Your task to perform on an android device: Open calendar and show me the first week of next month Image 0: 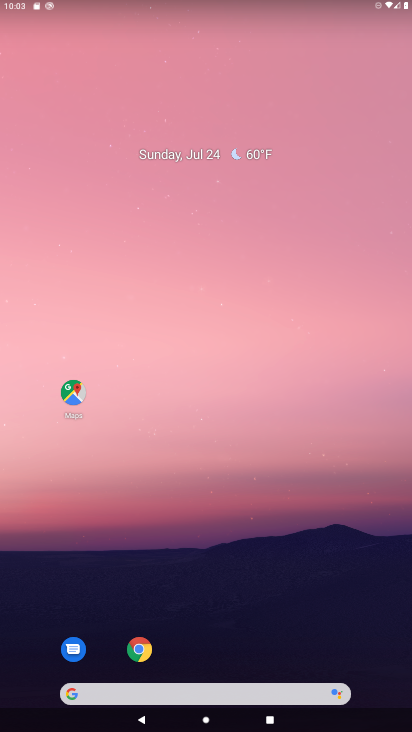
Step 0: drag from (315, 608) to (310, 58)
Your task to perform on an android device: Open calendar and show me the first week of next month Image 1: 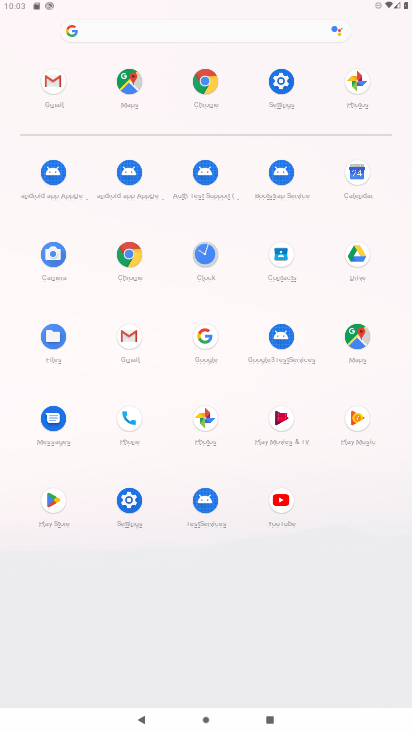
Step 1: click (354, 170)
Your task to perform on an android device: Open calendar and show me the first week of next month Image 2: 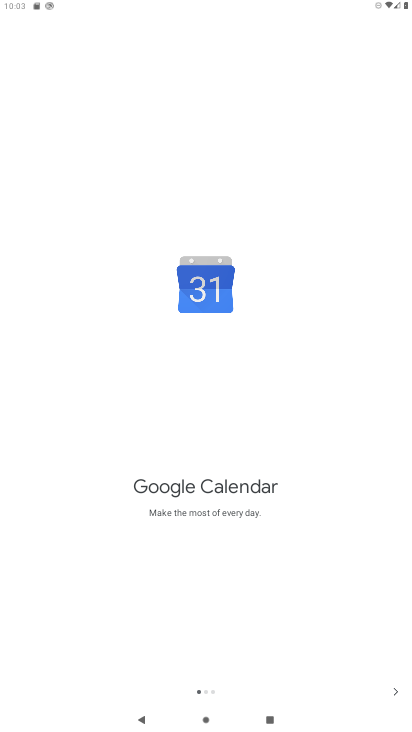
Step 2: click (396, 685)
Your task to perform on an android device: Open calendar and show me the first week of next month Image 3: 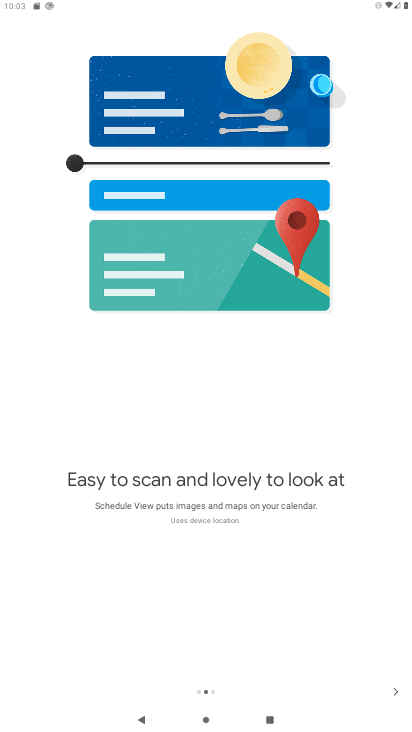
Step 3: click (396, 685)
Your task to perform on an android device: Open calendar and show me the first week of next month Image 4: 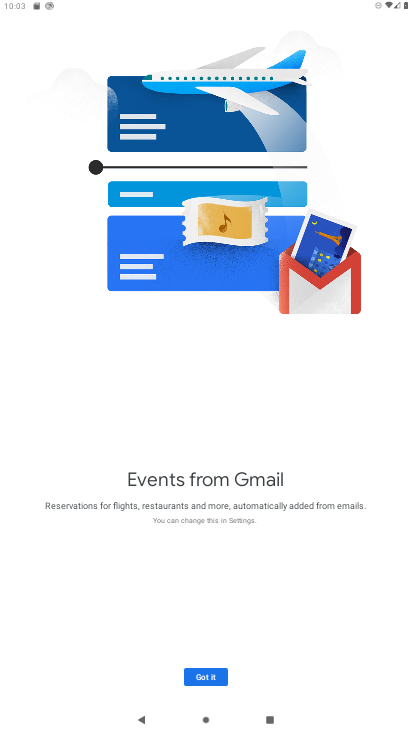
Step 4: click (205, 669)
Your task to perform on an android device: Open calendar and show me the first week of next month Image 5: 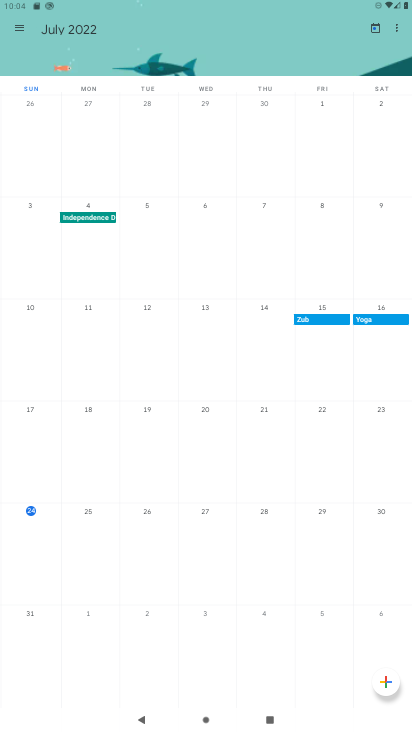
Step 5: click (27, 22)
Your task to perform on an android device: Open calendar and show me the first week of next month Image 6: 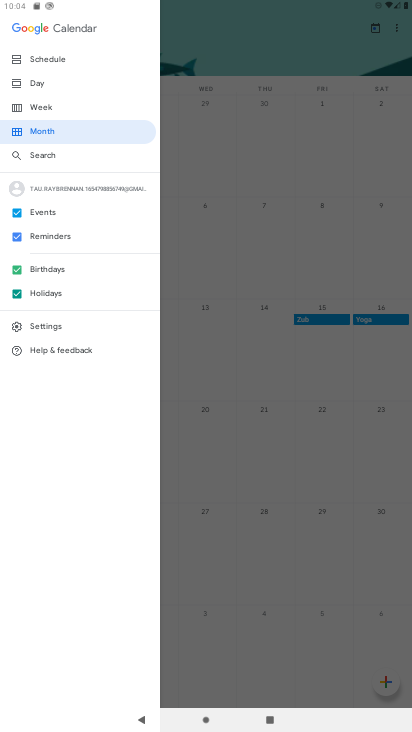
Step 6: click (270, 41)
Your task to perform on an android device: Open calendar and show me the first week of next month Image 7: 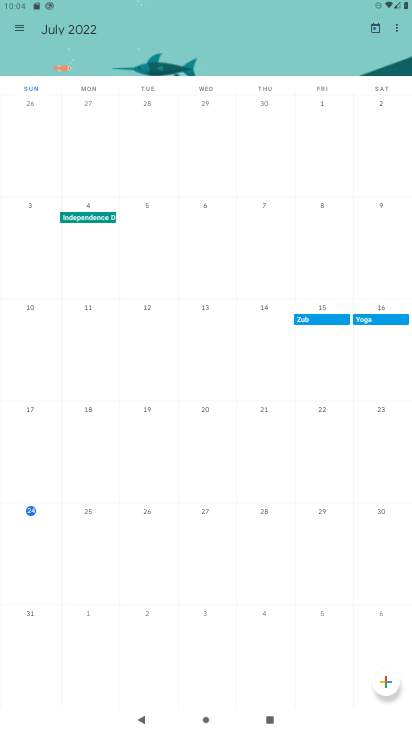
Step 7: drag from (394, 248) to (55, 254)
Your task to perform on an android device: Open calendar and show me the first week of next month Image 8: 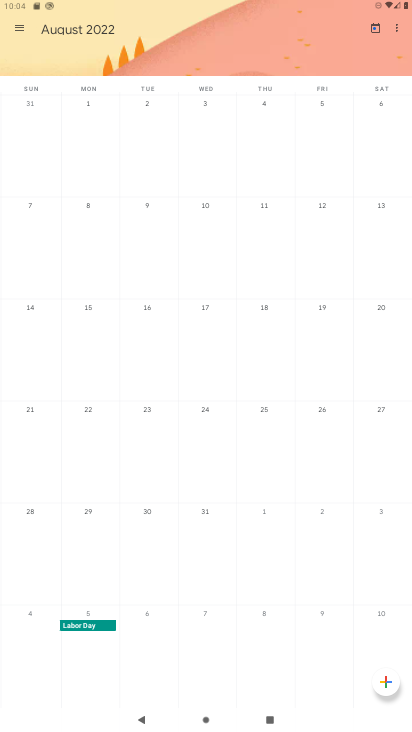
Step 8: click (265, 107)
Your task to perform on an android device: Open calendar and show me the first week of next month Image 9: 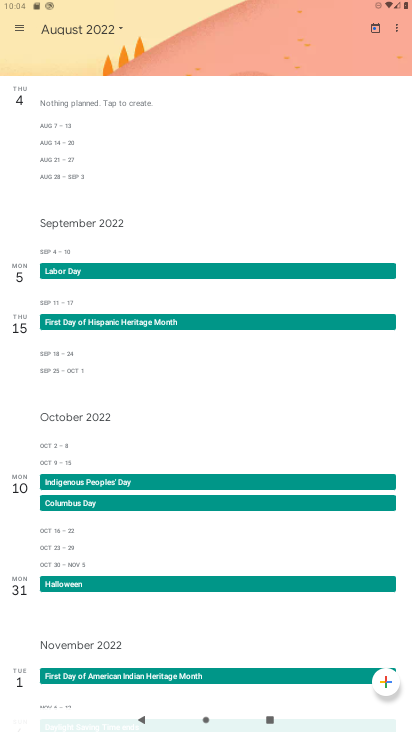
Step 9: click (18, 18)
Your task to perform on an android device: Open calendar and show me the first week of next month Image 10: 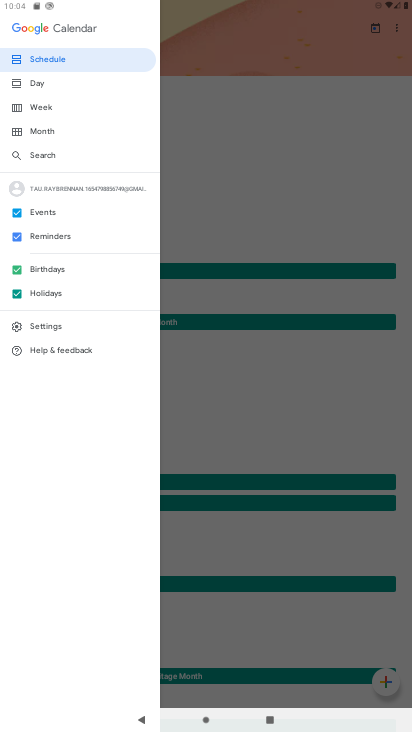
Step 10: click (51, 102)
Your task to perform on an android device: Open calendar and show me the first week of next month Image 11: 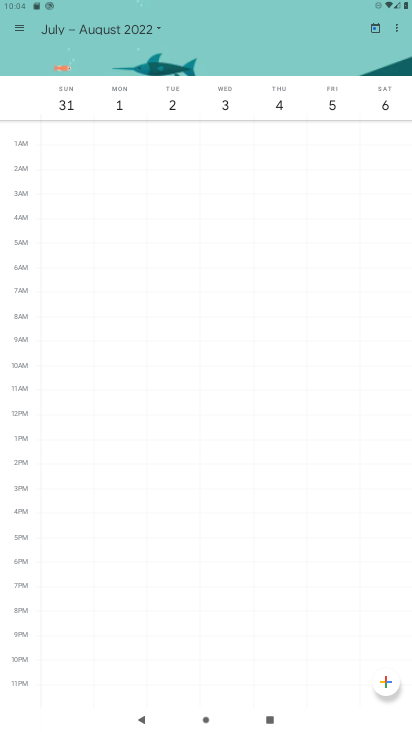
Step 11: task complete